Your task to perform on an android device: turn on the 24-hour format for clock Image 0: 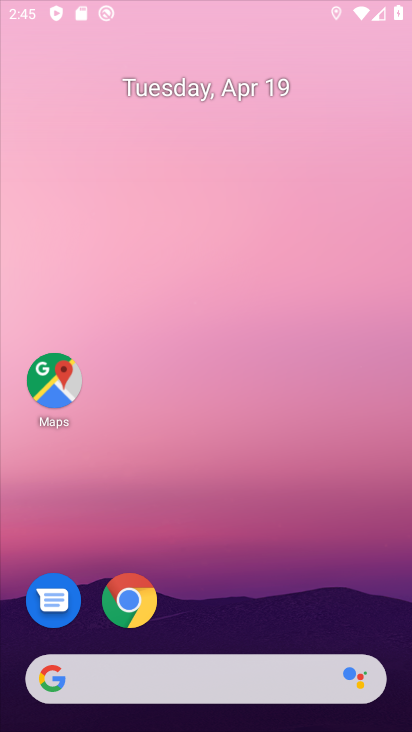
Step 0: click (258, 63)
Your task to perform on an android device: turn on the 24-hour format for clock Image 1: 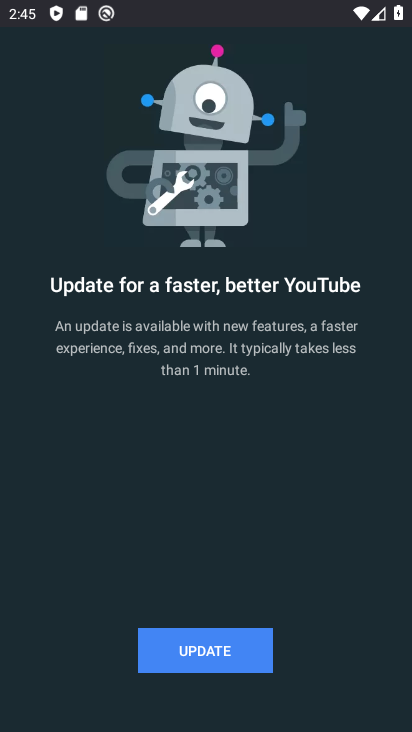
Step 1: press home button
Your task to perform on an android device: turn on the 24-hour format for clock Image 2: 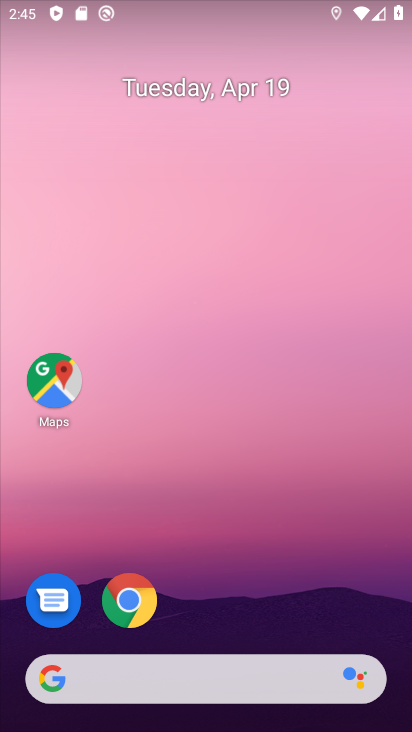
Step 2: drag from (344, 602) to (181, 110)
Your task to perform on an android device: turn on the 24-hour format for clock Image 3: 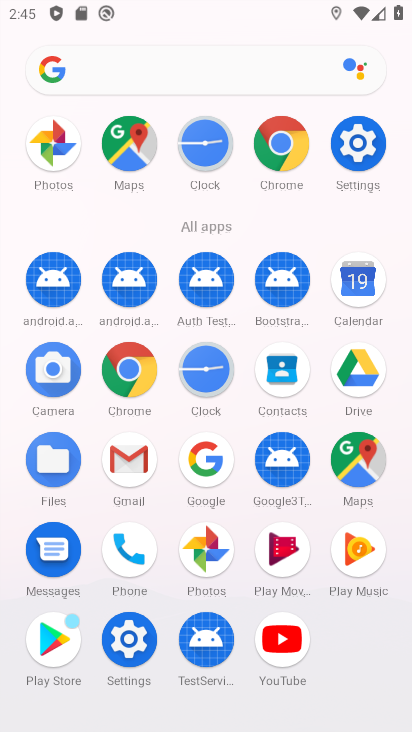
Step 3: click (211, 151)
Your task to perform on an android device: turn on the 24-hour format for clock Image 4: 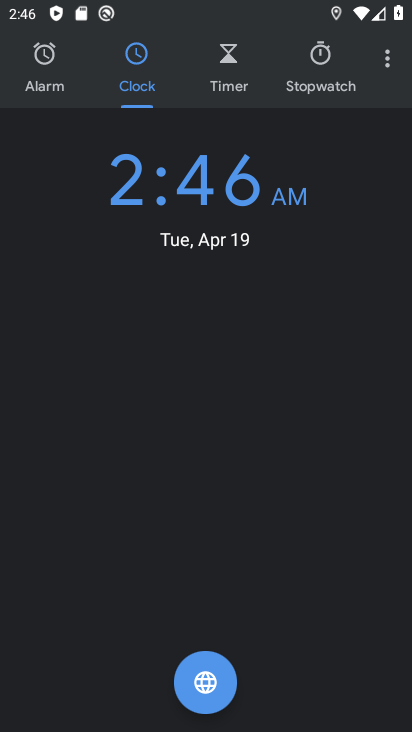
Step 4: click (388, 70)
Your task to perform on an android device: turn on the 24-hour format for clock Image 5: 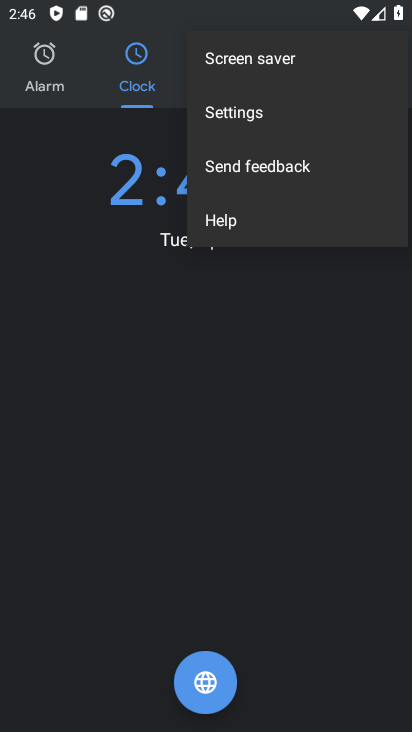
Step 5: click (365, 109)
Your task to perform on an android device: turn on the 24-hour format for clock Image 6: 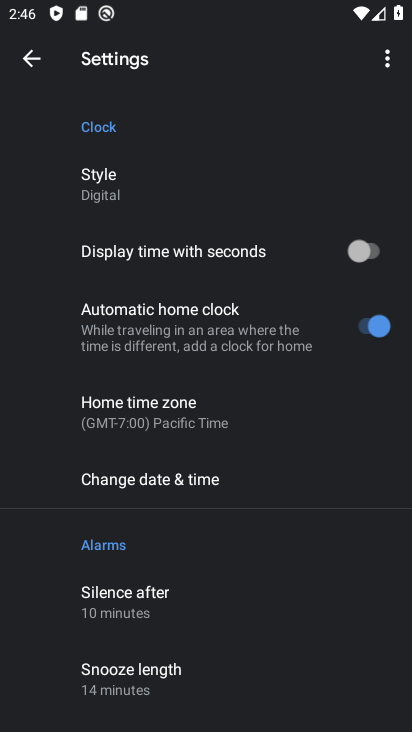
Step 6: drag from (306, 583) to (268, 329)
Your task to perform on an android device: turn on the 24-hour format for clock Image 7: 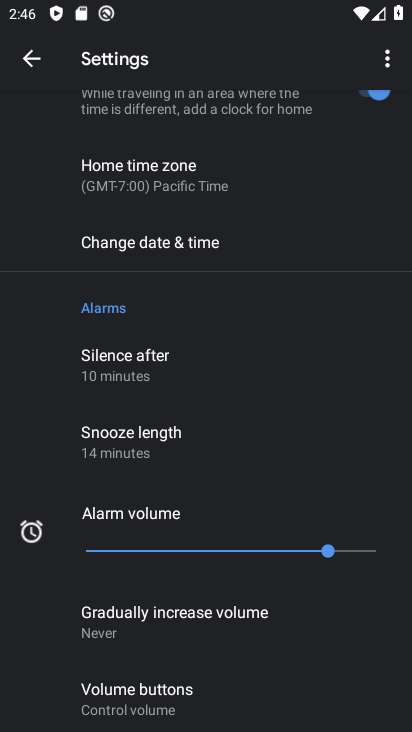
Step 7: click (253, 238)
Your task to perform on an android device: turn on the 24-hour format for clock Image 8: 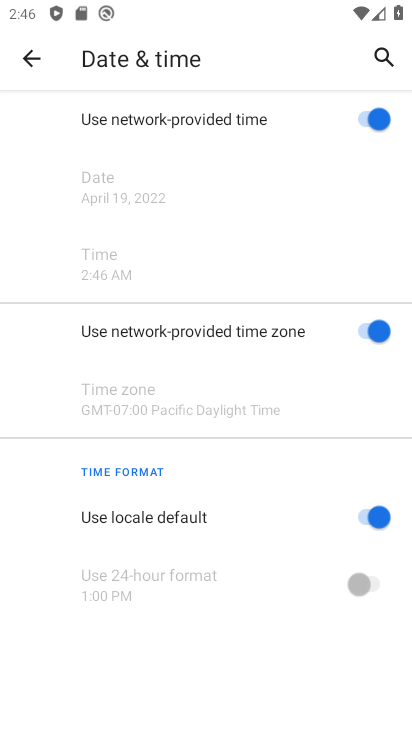
Step 8: click (364, 517)
Your task to perform on an android device: turn on the 24-hour format for clock Image 9: 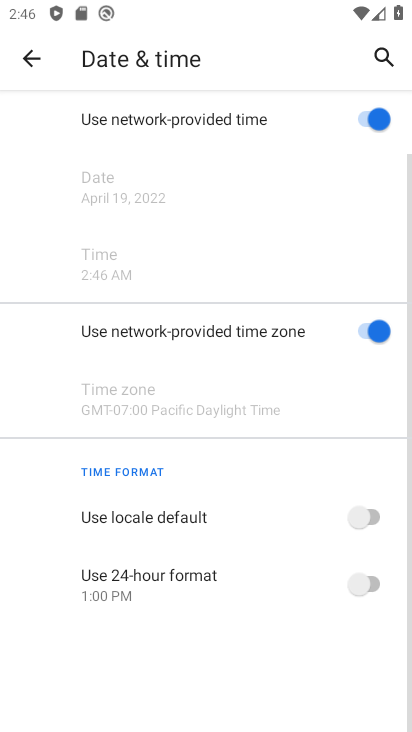
Step 9: click (369, 586)
Your task to perform on an android device: turn on the 24-hour format for clock Image 10: 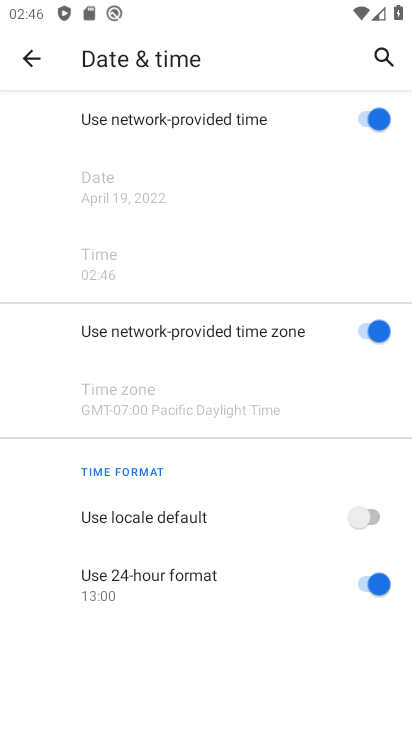
Step 10: task complete